Your task to perform on an android device: set default search engine in the chrome app Image 0: 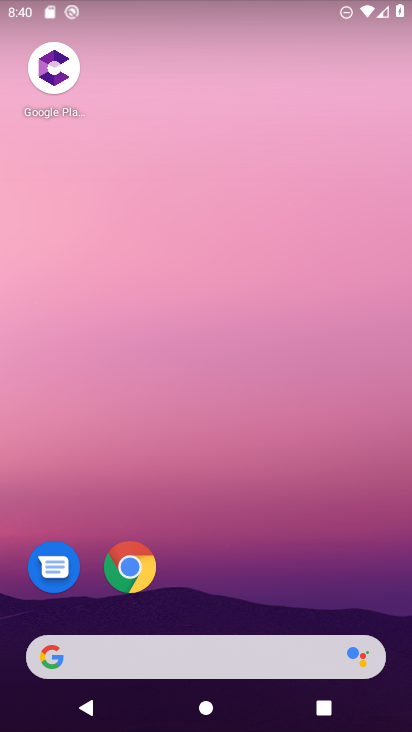
Step 0: press home button
Your task to perform on an android device: set default search engine in the chrome app Image 1: 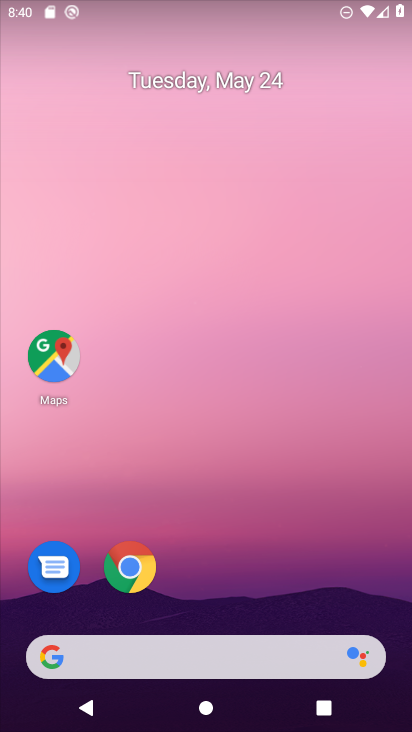
Step 1: click (138, 569)
Your task to perform on an android device: set default search engine in the chrome app Image 2: 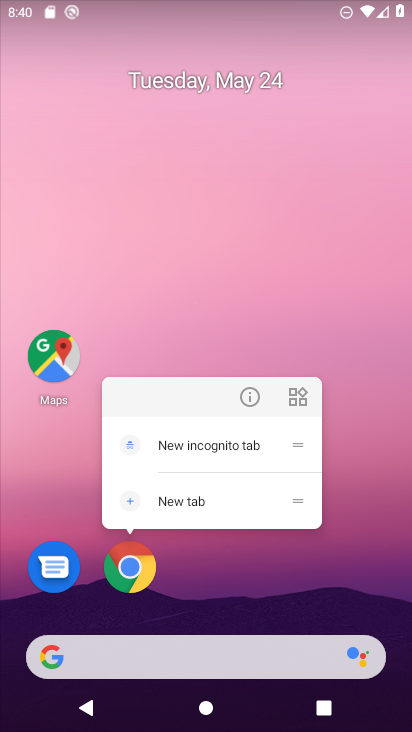
Step 2: click (132, 575)
Your task to perform on an android device: set default search engine in the chrome app Image 3: 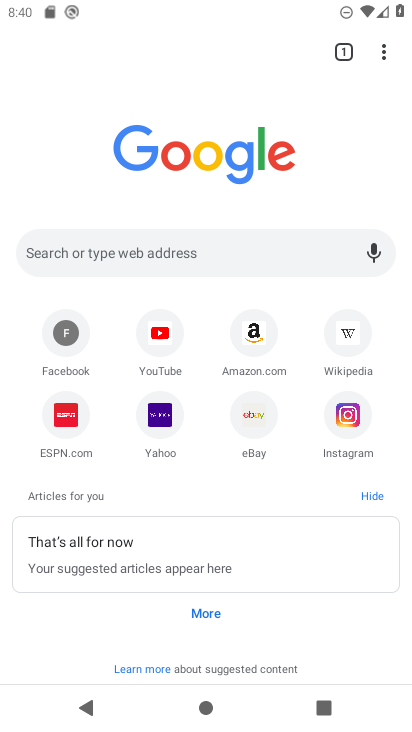
Step 3: drag from (382, 56) to (219, 439)
Your task to perform on an android device: set default search engine in the chrome app Image 4: 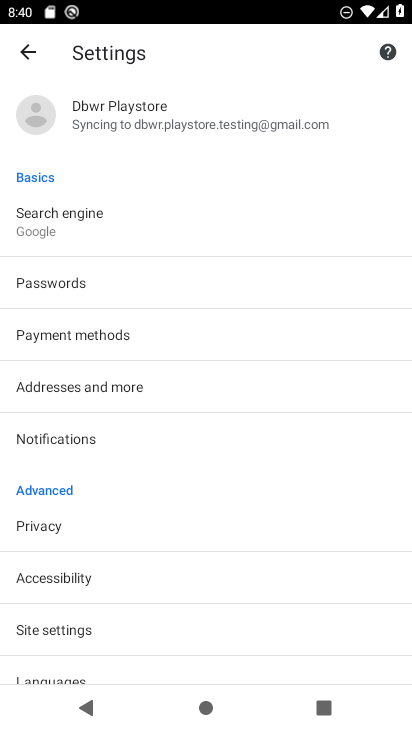
Step 4: click (94, 225)
Your task to perform on an android device: set default search engine in the chrome app Image 5: 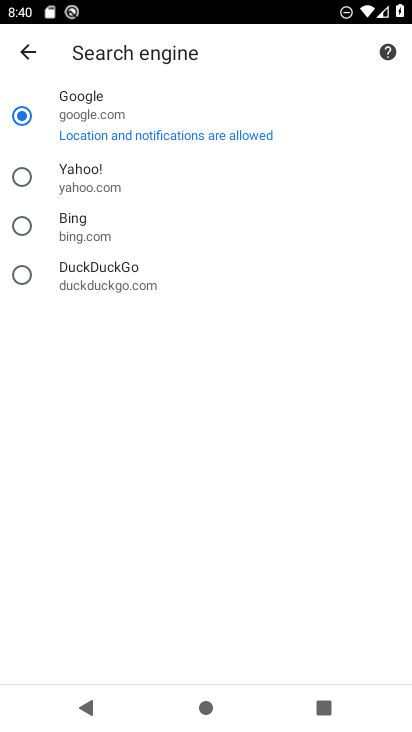
Step 5: click (25, 179)
Your task to perform on an android device: set default search engine in the chrome app Image 6: 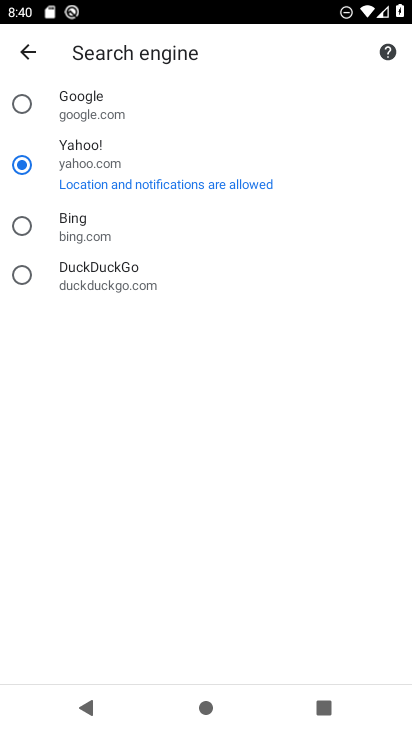
Step 6: task complete